Your task to perform on an android device: Open Reddit.com Image 0: 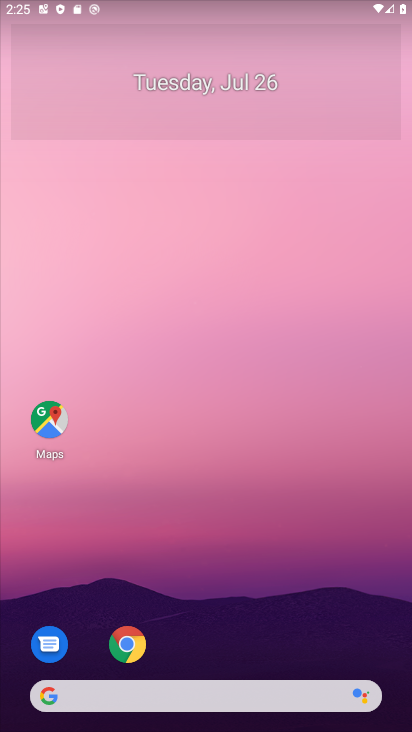
Step 0: press home button
Your task to perform on an android device: Open Reddit.com Image 1: 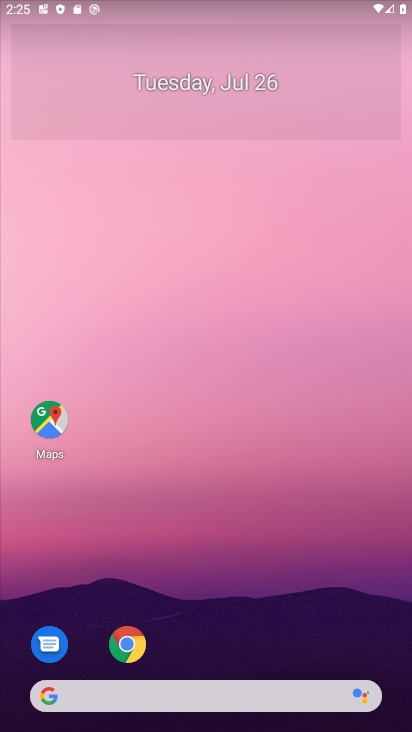
Step 1: click (41, 698)
Your task to perform on an android device: Open Reddit.com Image 2: 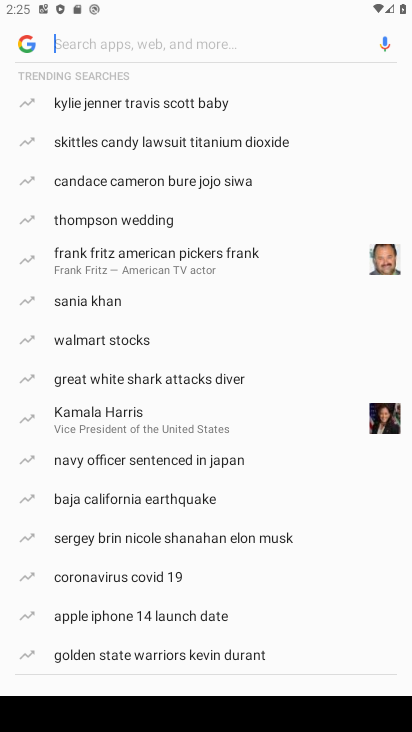
Step 2: type "Reddit.com"
Your task to perform on an android device: Open Reddit.com Image 3: 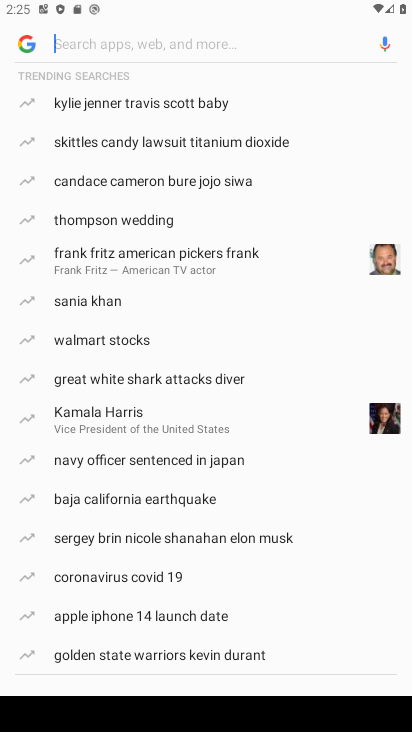
Step 3: click (127, 46)
Your task to perform on an android device: Open Reddit.com Image 4: 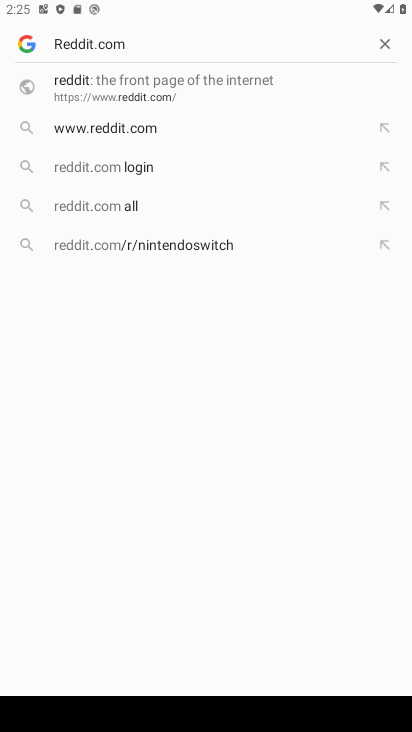
Step 4: press enter
Your task to perform on an android device: Open Reddit.com Image 5: 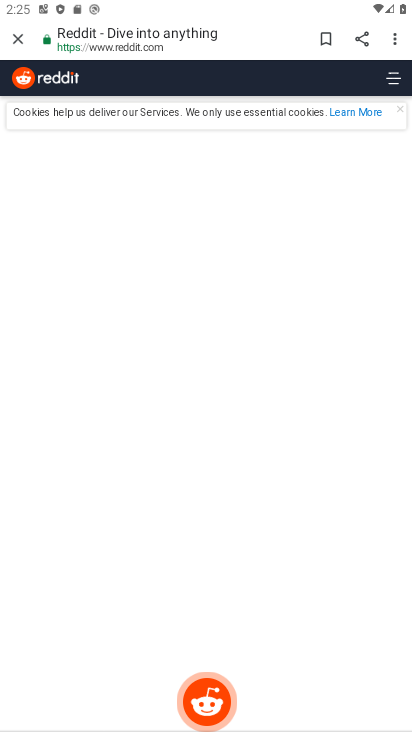
Step 5: task complete